Your task to perform on an android device: toggle javascript in the chrome app Image 0: 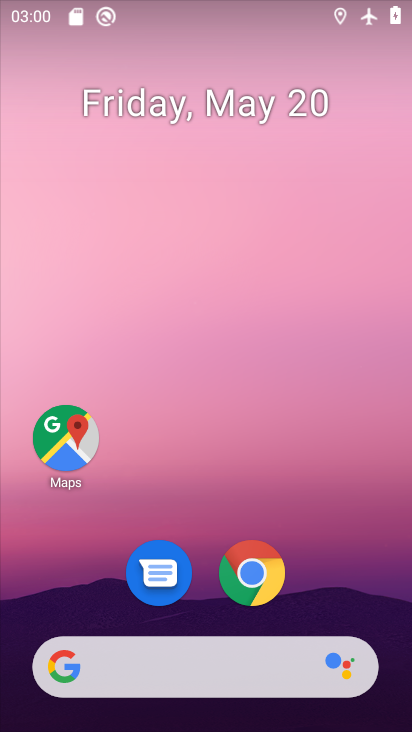
Step 0: click (243, 590)
Your task to perform on an android device: toggle javascript in the chrome app Image 1: 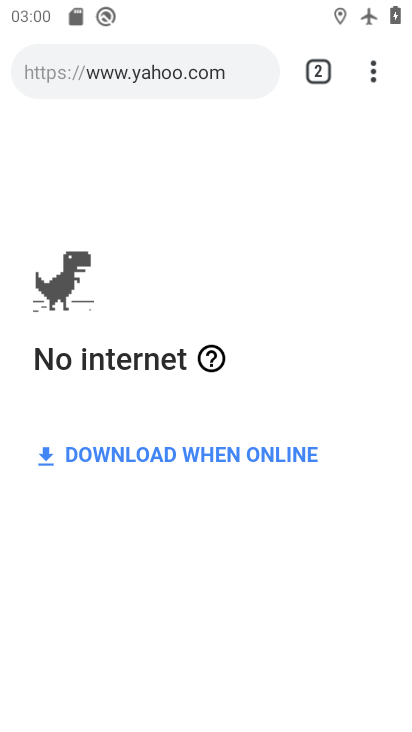
Step 1: click (368, 71)
Your task to perform on an android device: toggle javascript in the chrome app Image 2: 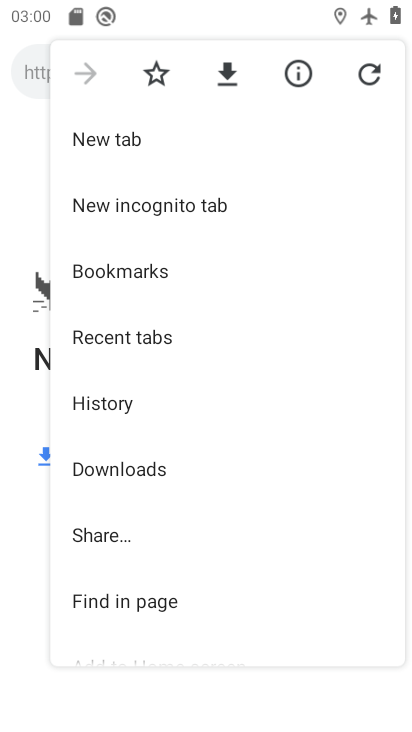
Step 2: drag from (222, 536) to (235, 300)
Your task to perform on an android device: toggle javascript in the chrome app Image 3: 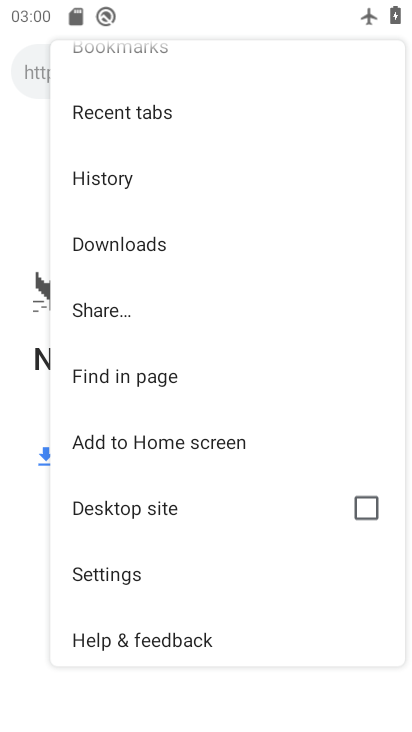
Step 3: click (136, 566)
Your task to perform on an android device: toggle javascript in the chrome app Image 4: 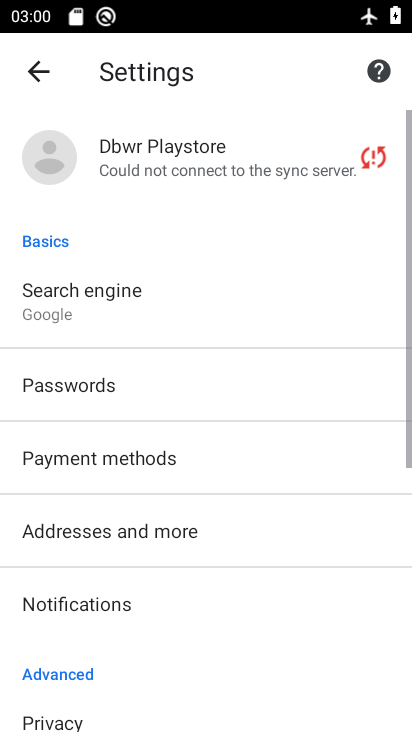
Step 4: drag from (182, 581) to (190, 334)
Your task to perform on an android device: toggle javascript in the chrome app Image 5: 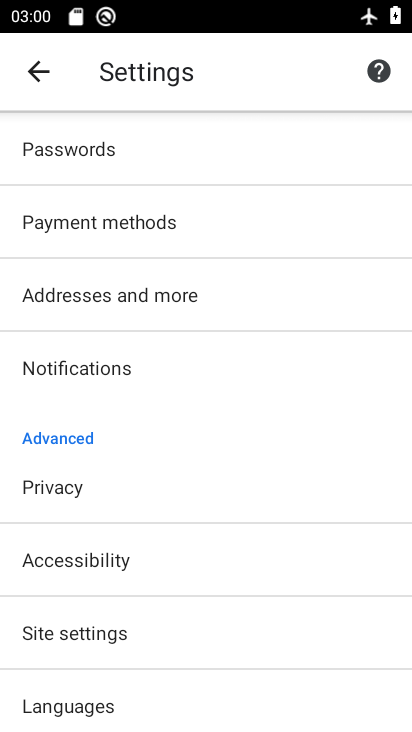
Step 5: drag from (192, 608) to (191, 333)
Your task to perform on an android device: toggle javascript in the chrome app Image 6: 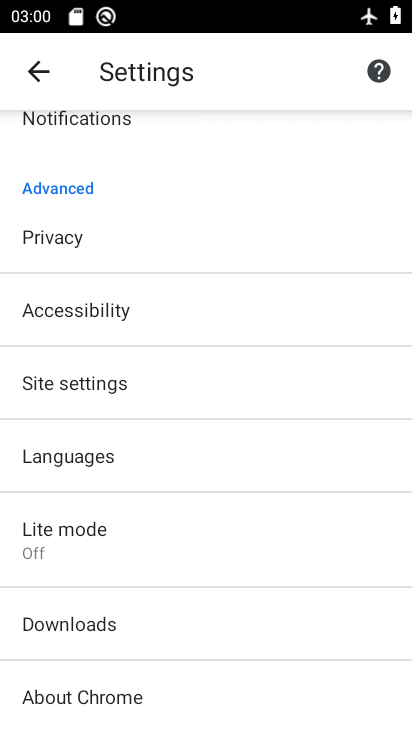
Step 6: drag from (129, 627) to (171, 440)
Your task to perform on an android device: toggle javascript in the chrome app Image 7: 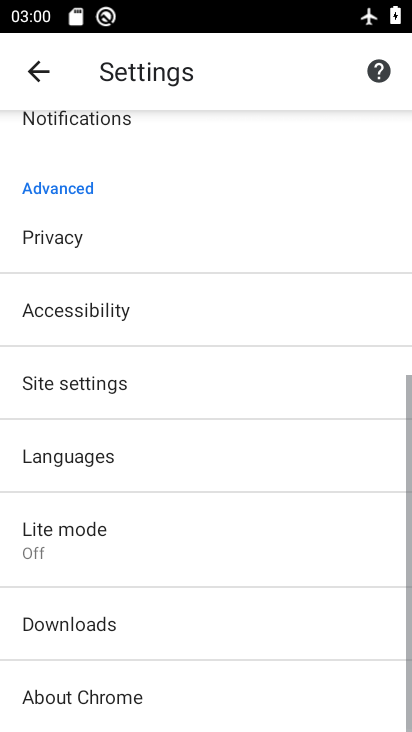
Step 7: drag from (171, 628) to (195, 383)
Your task to perform on an android device: toggle javascript in the chrome app Image 8: 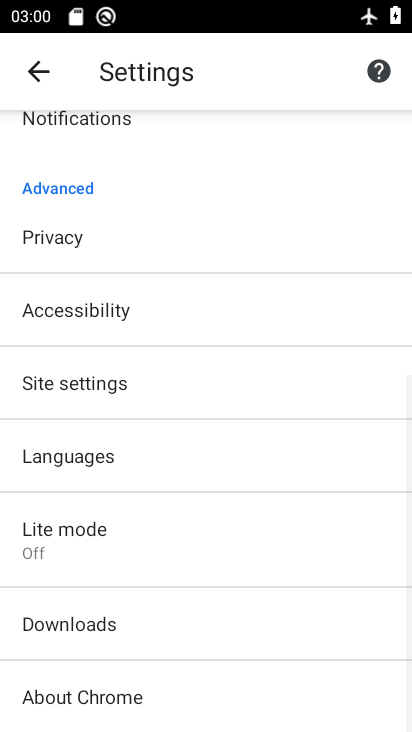
Step 8: drag from (125, 639) to (200, 309)
Your task to perform on an android device: toggle javascript in the chrome app Image 9: 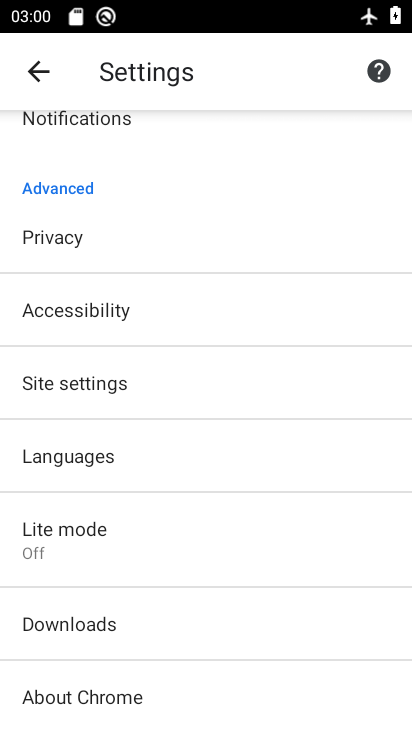
Step 9: click (156, 391)
Your task to perform on an android device: toggle javascript in the chrome app Image 10: 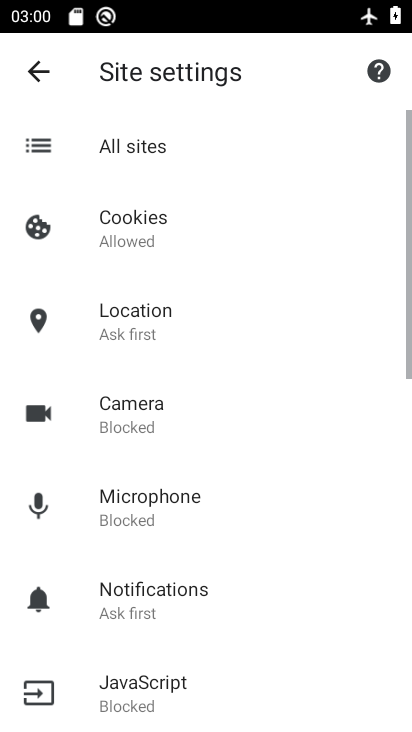
Step 10: drag from (201, 618) to (202, 353)
Your task to perform on an android device: toggle javascript in the chrome app Image 11: 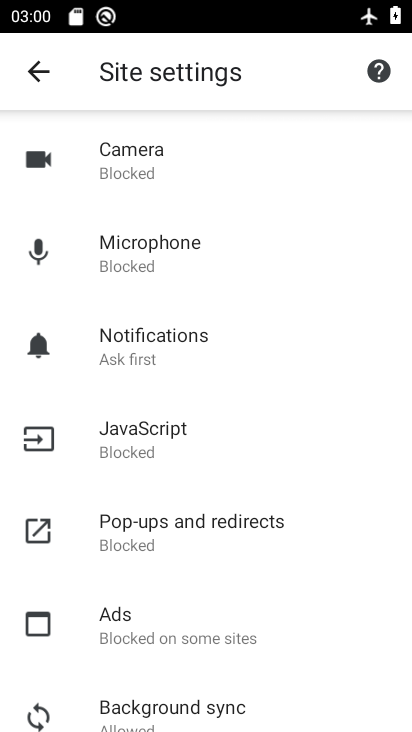
Step 11: click (178, 444)
Your task to perform on an android device: toggle javascript in the chrome app Image 12: 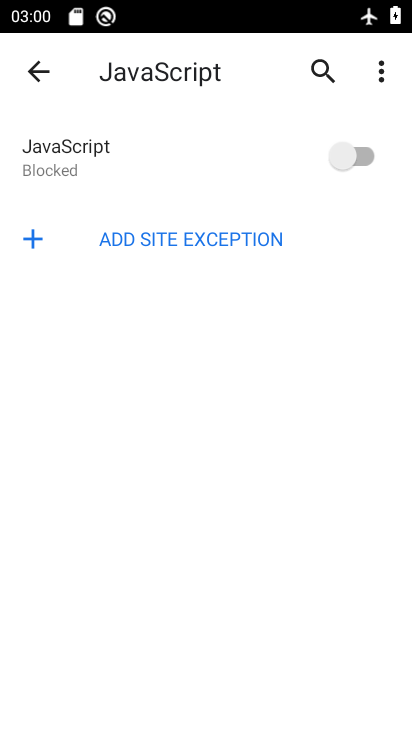
Step 12: click (369, 156)
Your task to perform on an android device: toggle javascript in the chrome app Image 13: 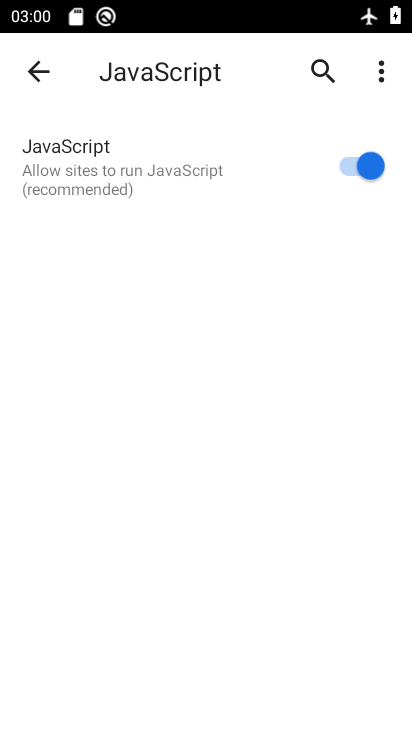
Step 13: task complete